Your task to perform on an android device: allow cookies in the chrome app Image 0: 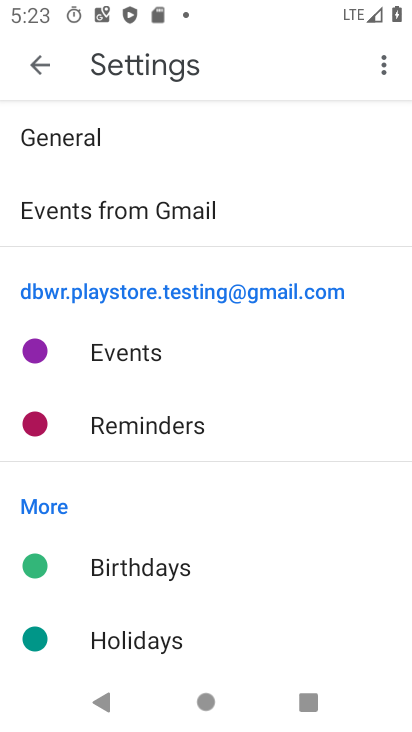
Step 0: press home button
Your task to perform on an android device: allow cookies in the chrome app Image 1: 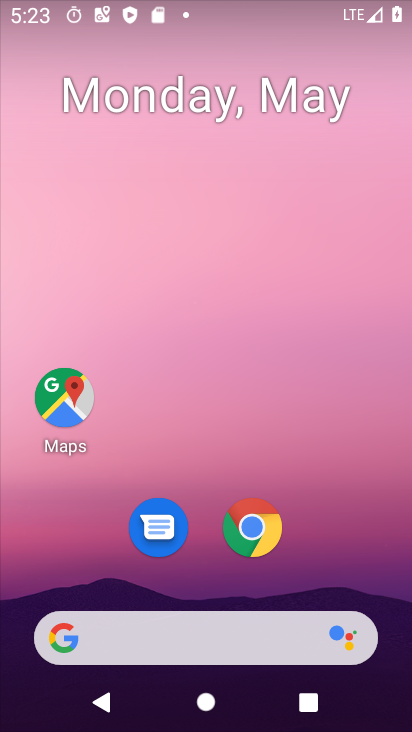
Step 1: click (247, 537)
Your task to perform on an android device: allow cookies in the chrome app Image 2: 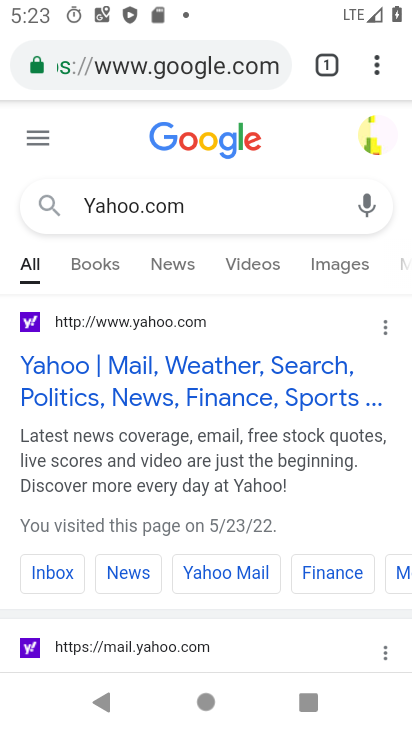
Step 2: press back button
Your task to perform on an android device: allow cookies in the chrome app Image 3: 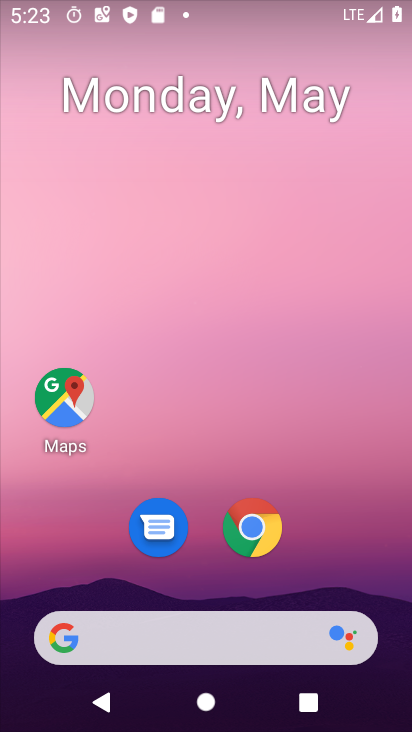
Step 3: click (246, 535)
Your task to perform on an android device: allow cookies in the chrome app Image 4: 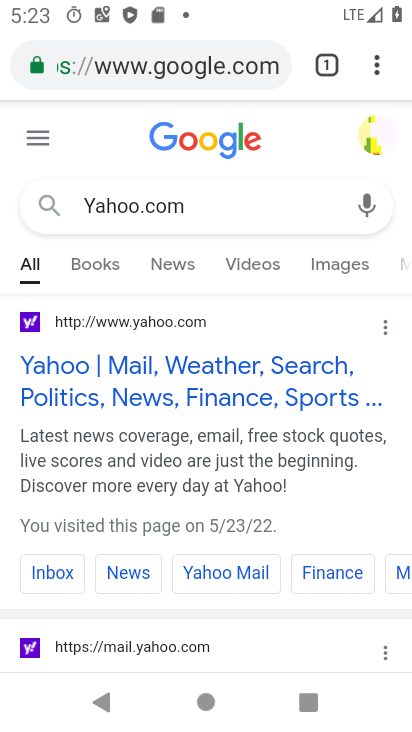
Step 4: click (379, 60)
Your task to perform on an android device: allow cookies in the chrome app Image 5: 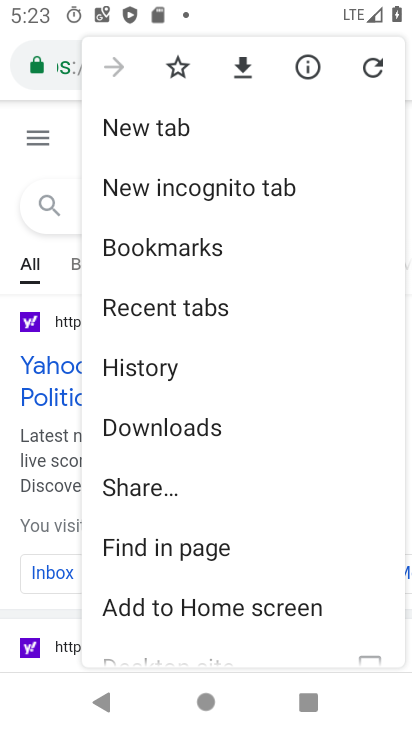
Step 5: drag from (330, 601) to (264, 204)
Your task to perform on an android device: allow cookies in the chrome app Image 6: 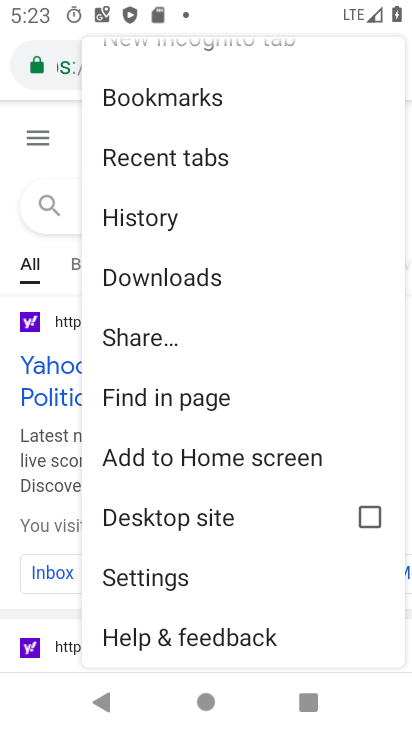
Step 6: click (158, 577)
Your task to perform on an android device: allow cookies in the chrome app Image 7: 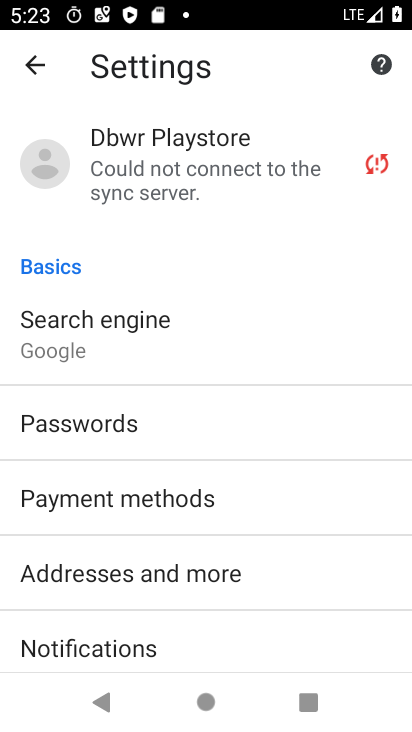
Step 7: drag from (243, 648) to (266, 150)
Your task to perform on an android device: allow cookies in the chrome app Image 8: 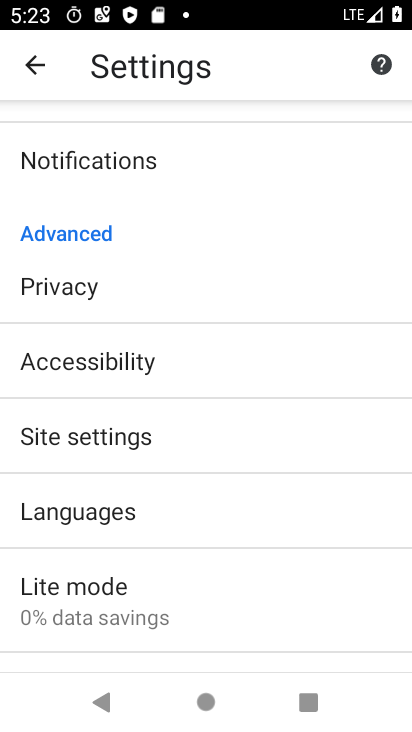
Step 8: click (40, 435)
Your task to perform on an android device: allow cookies in the chrome app Image 9: 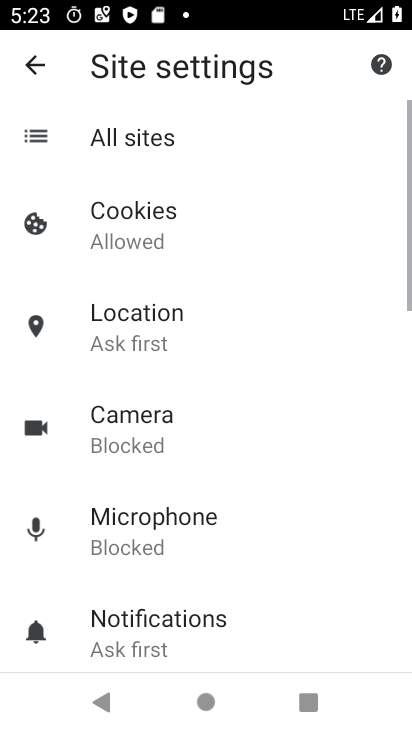
Step 9: click (126, 206)
Your task to perform on an android device: allow cookies in the chrome app Image 10: 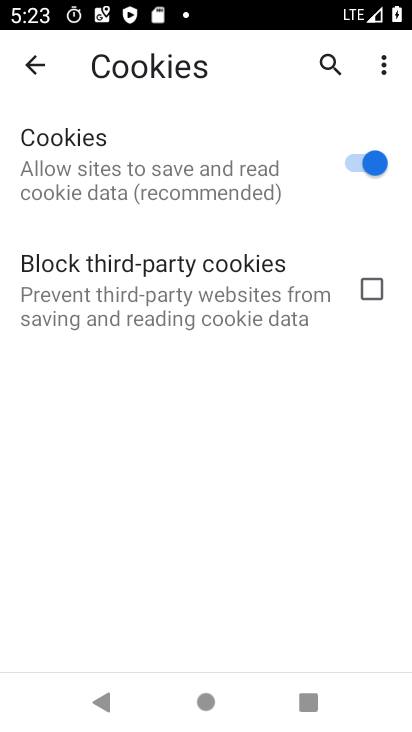
Step 10: task complete